Your task to perform on an android device: Open settings on Google Maps Image 0: 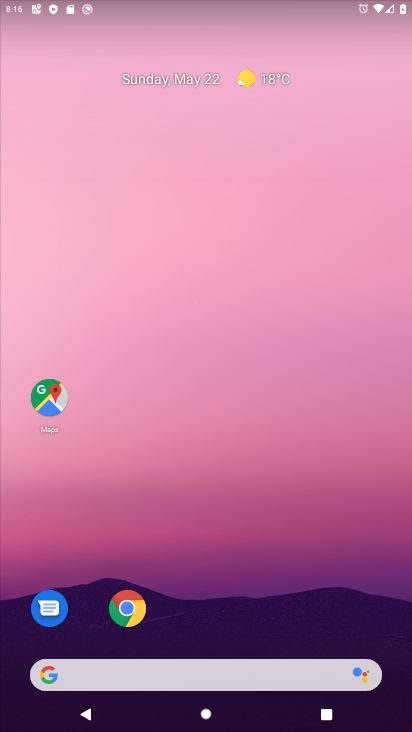
Step 0: drag from (234, 729) to (236, 106)
Your task to perform on an android device: Open settings on Google Maps Image 1: 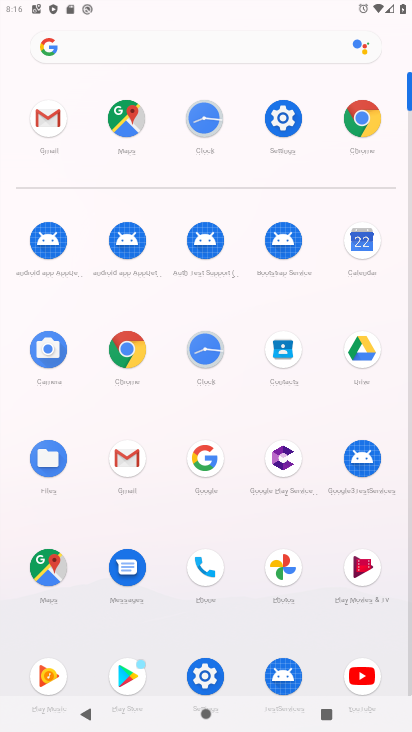
Step 1: click (52, 574)
Your task to perform on an android device: Open settings on Google Maps Image 2: 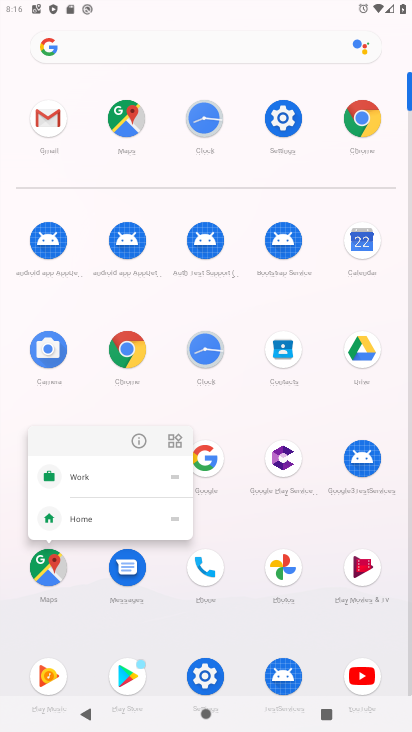
Step 2: click (52, 574)
Your task to perform on an android device: Open settings on Google Maps Image 3: 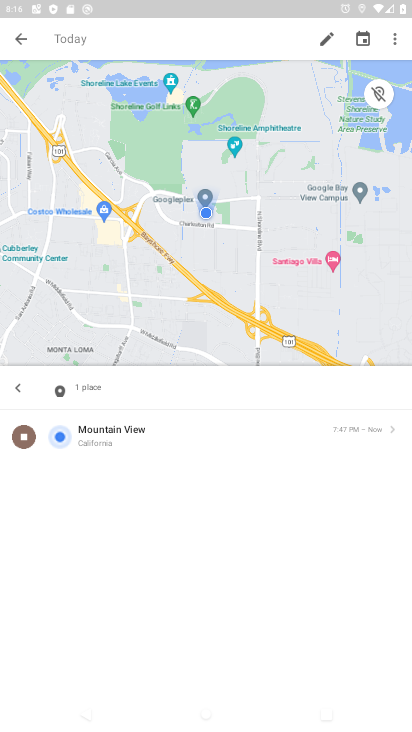
Step 3: click (19, 36)
Your task to perform on an android device: Open settings on Google Maps Image 4: 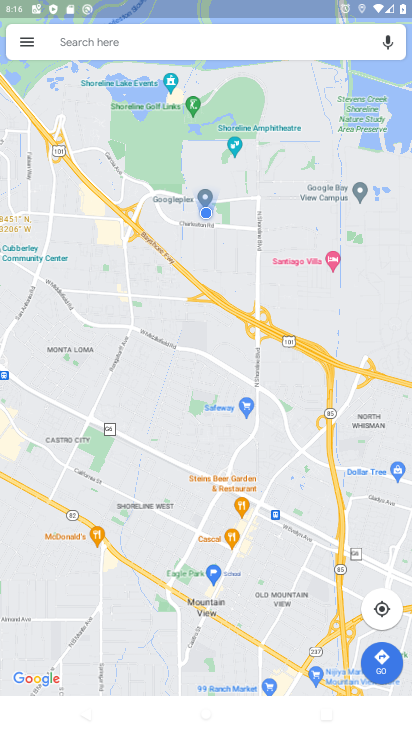
Step 4: click (29, 38)
Your task to perform on an android device: Open settings on Google Maps Image 5: 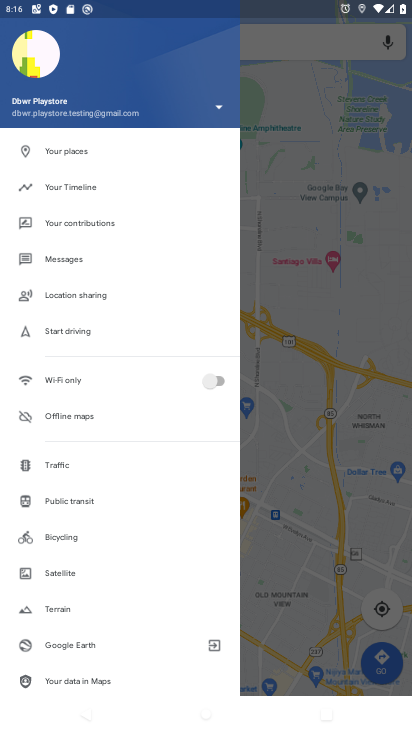
Step 5: drag from (74, 639) to (74, 268)
Your task to perform on an android device: Open settings on Google Maps Image 6: 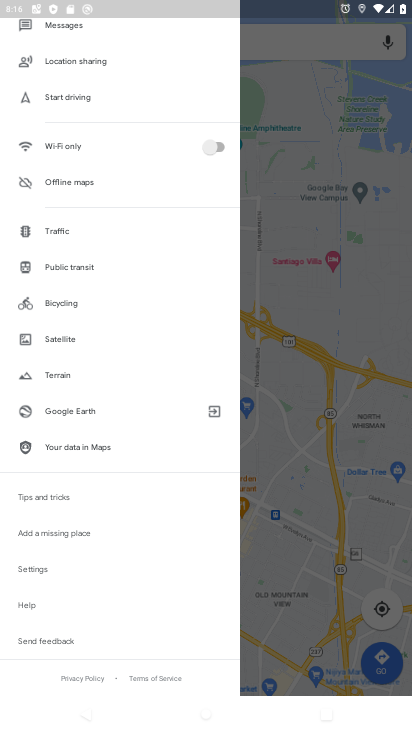
Step 6: click (44, 572)
Your task to perform on an android device: Open settings on Google Maps Image 7: 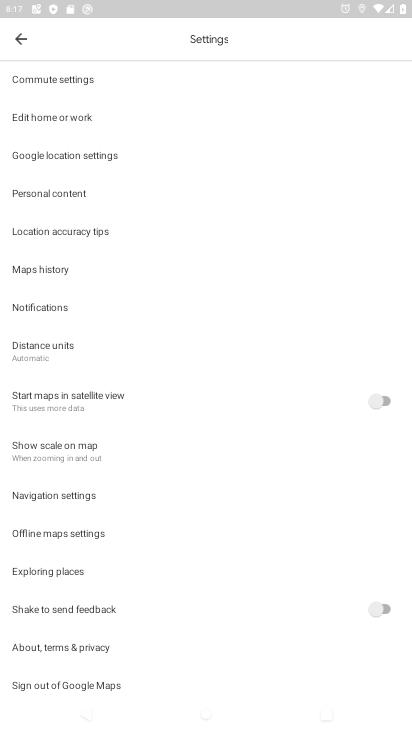
Step 7: task complete